Your task to perform on an android device: choose inbox layout in the gmail app Image 0: 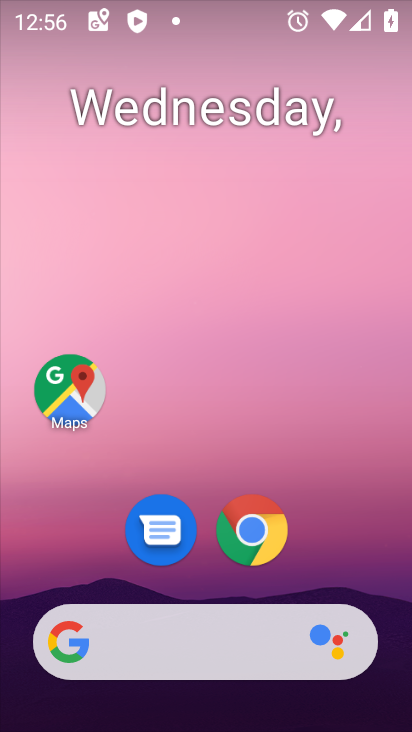
Step 0: drag from (208, 574) to (273, 165)
Your task to perform on an android device: choose inbox layout in the gmail app Image 1: 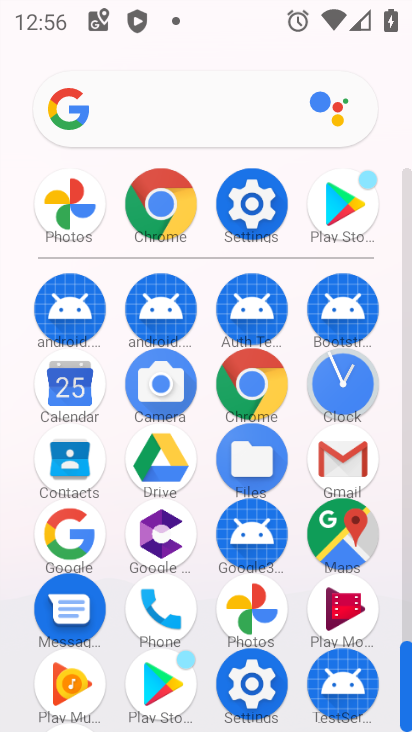
Step 1: click (334, 460)
Your task to perform on an android device: choose inbox layout in the gmail app Image 2: 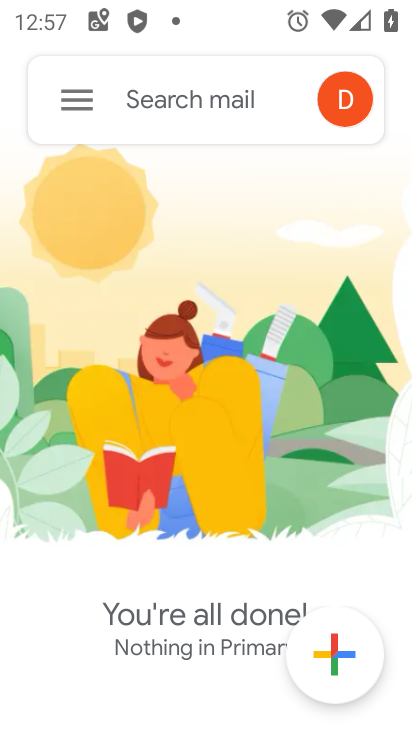
Step 2: click (84, 99)
Your task to perform on an android device: choose inbox layout in the gmail app Image 3: 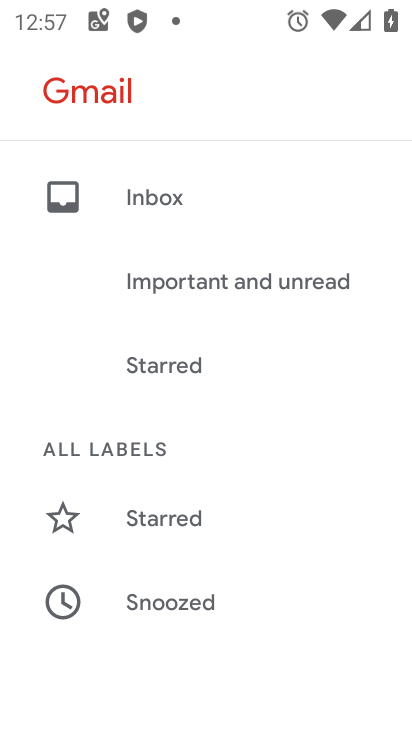
Step 3: drag from (180, 618) to (281, 263)
Your task to perform on an android device: choose inbox layout in the gmail app Image 4: 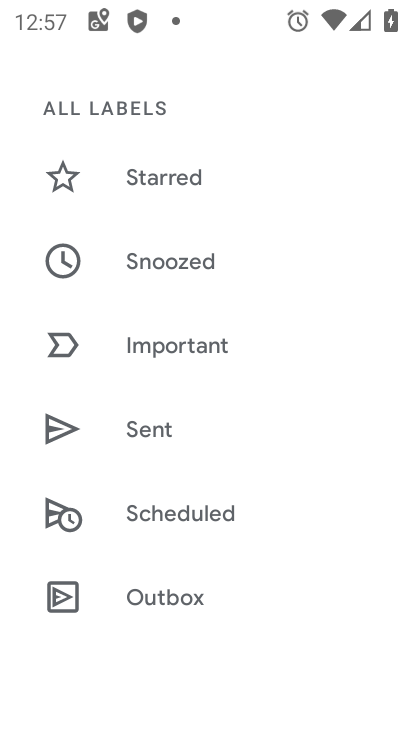
Step 4: drag from (173, 561) to (266, 232)
Your task to perform on an android device: choose inbox layout in the gmail app Image 5: 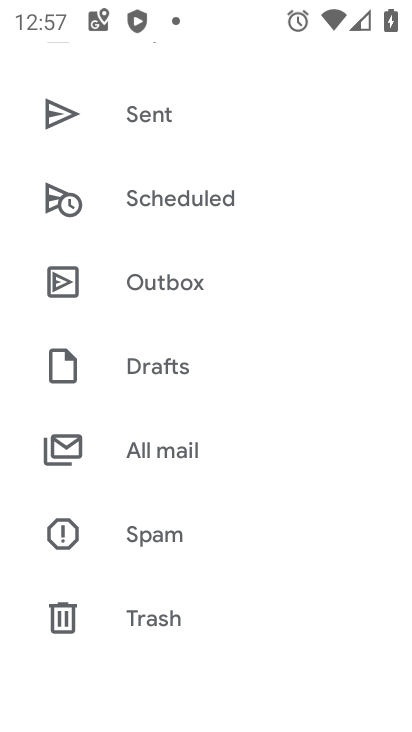
Step 5: drag from (168, 552) to (260, 230)
Your task to perform on an android device: choose inbox layout in the gmail app Image 6: 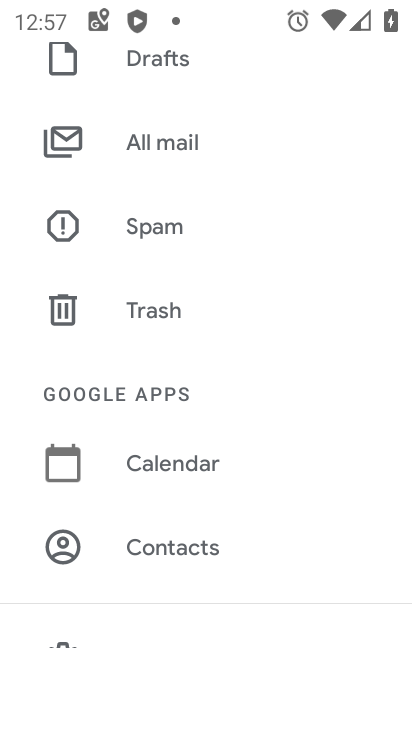
Step 6: drag from (170, 568) to (281, 197)
Your task to perform on an android device: choose inbox layout in the gmail app Image 7: 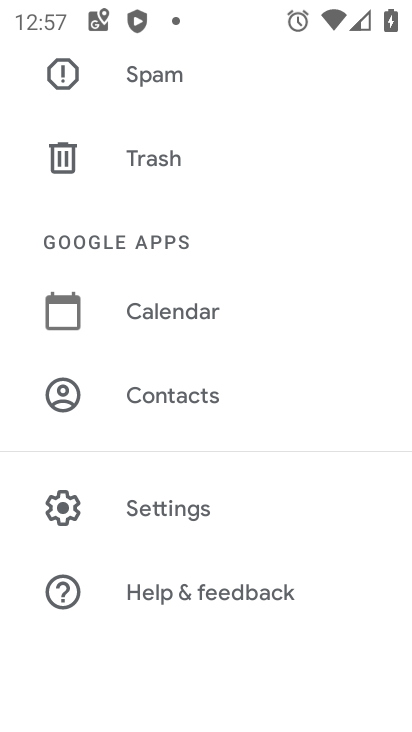
Step 7: click (164, 509)
Your task to perform on an android device: choose inbox layout in the gmail app Image 8: 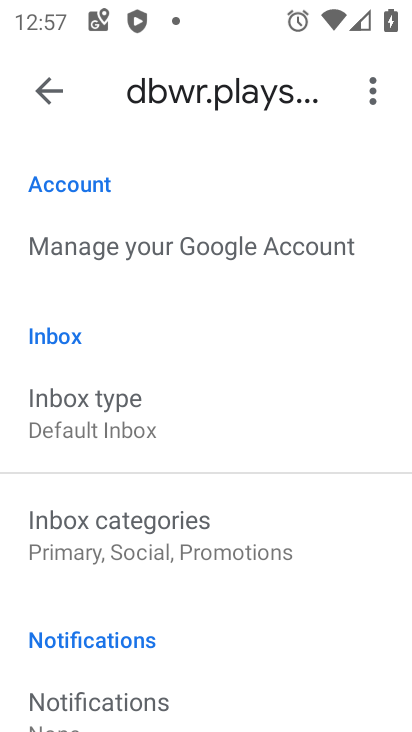
Step 8: click (123, 409)
Your task to perform on an android device: choose inbox layout in the gmail app Image 9: 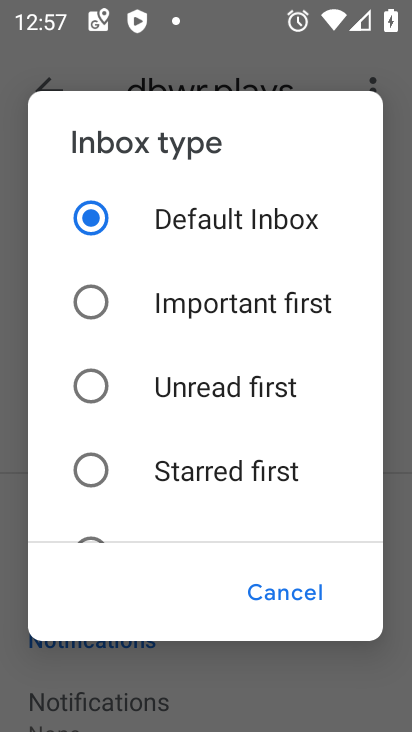
Step 9: drag from (132, 424) to (187, 70)
Your task to perform on an android device: choose inbox layout in the gmail app Image 10: 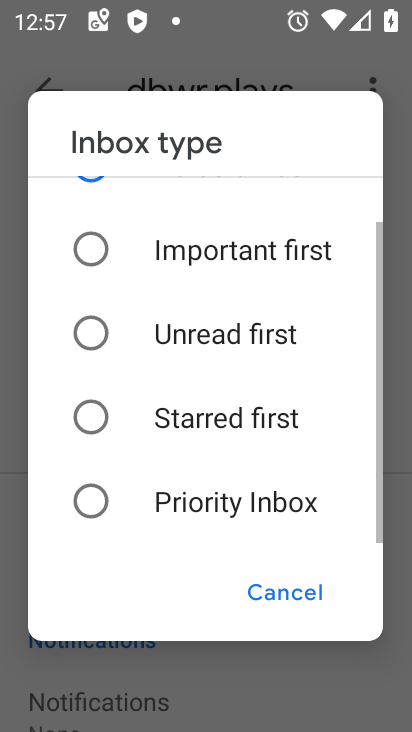
Step 10: click (78, 501)
Your task to perform on an android device: choose inbox layout in the gmail app Image 11: 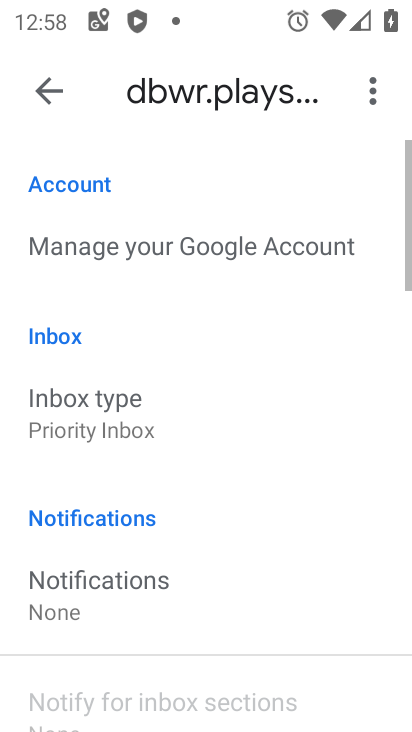
Step 11: task complete